Your task to perform on an android device: open a bookmark in the chrome app Image 0: 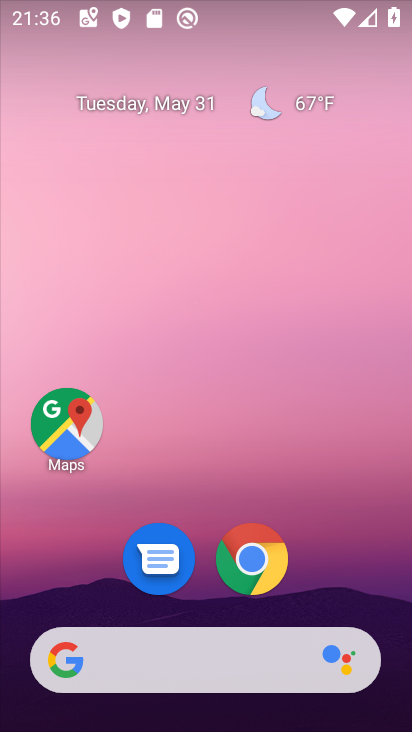
Step 0: click (248, 560)
Your task to perform on an android device: open a bookmark in the chrome app Image 1: 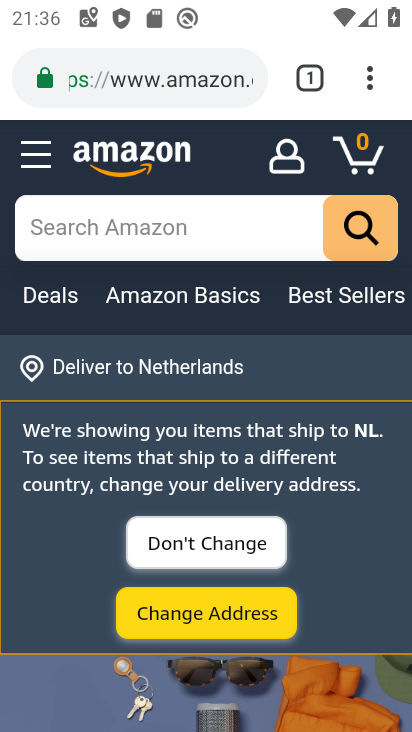
Step 1: click (364, 77)
Your task to perform on an android device: open a bookmark in the chrome app Image 2: 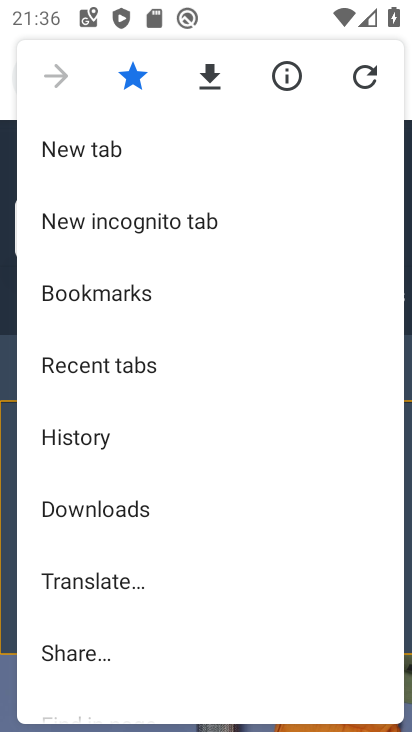
Step 2: click (106, 291)
Your task to perform on an android device: open a bookmark in the chrome app Image 3: 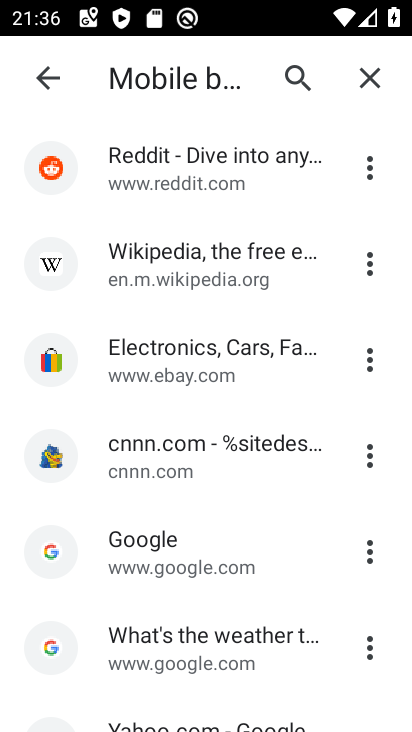
Step 3: click (174, 271)
Your task to perform on an android device: open a bookmark in the chrome app Image 4: 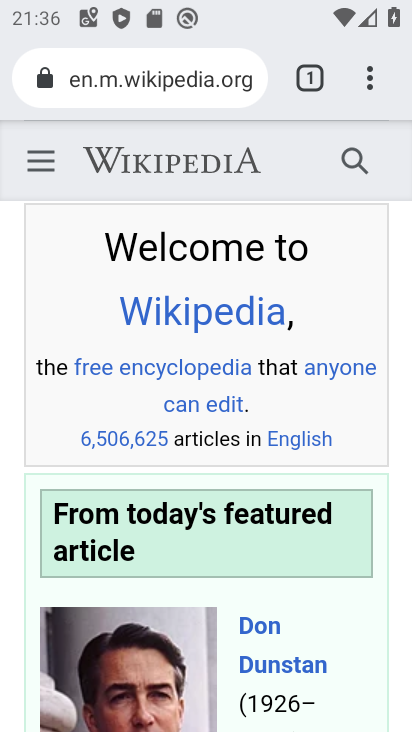
Step 4: task complete